Your task to perform on an android device: toggle show notifications on the lock screen Image 0: 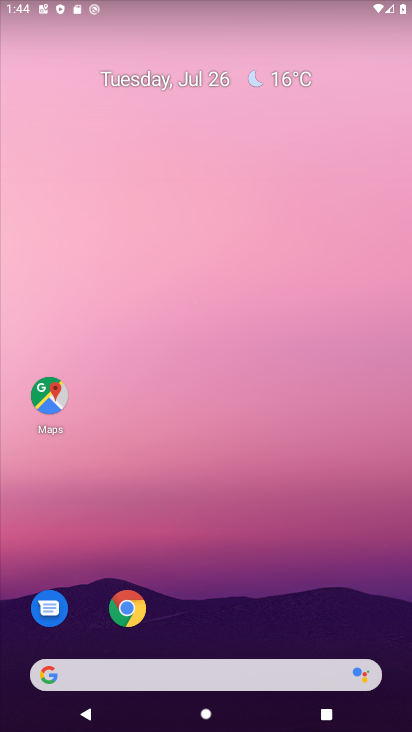
Step 0: drag from (310, 627) to (250, 150)
Your task to perform on an android device: toggle show notifications on the lock screen Image 1: 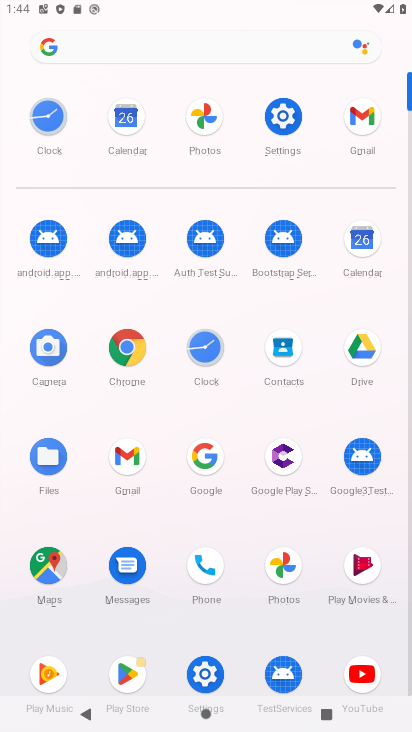
Step 1: click (274, 139)
Your task to perform on an android device: toggle show notifications on the lock screen Image 2: 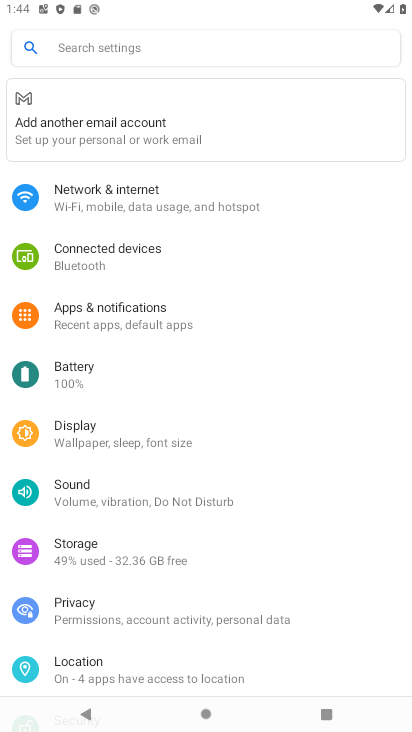
Step 2: click (177, 320)
Your task to perform on an android device: toggle show notifications on the lock screen Image 3: 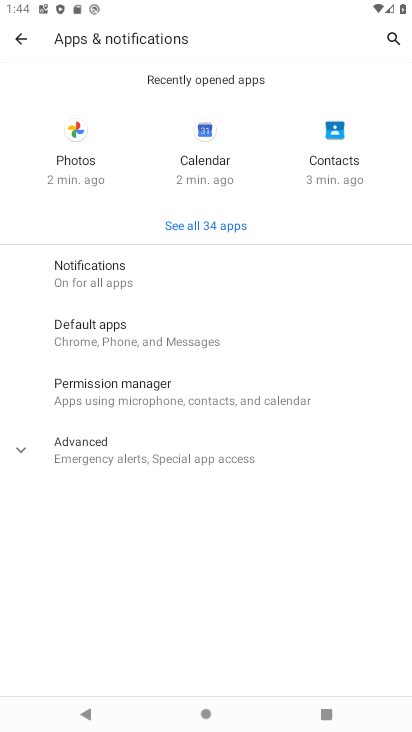
Step 3: task complete